Your task to perform on an android device: turn off picture-in-picture Image 0: 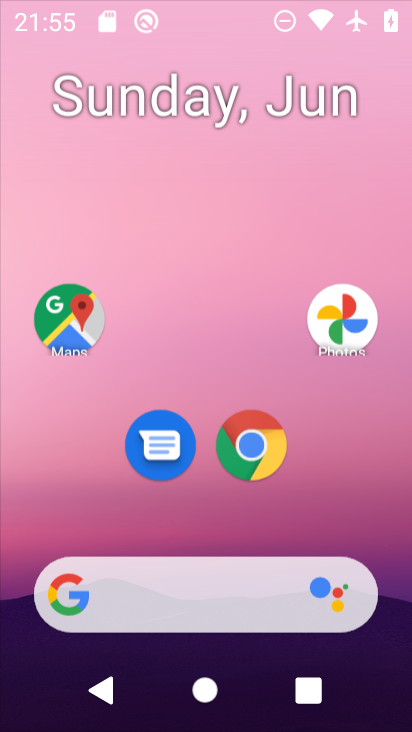
Step 0: press home button
Your task to perform on an android device: turn off picture-in-picture Image 1: 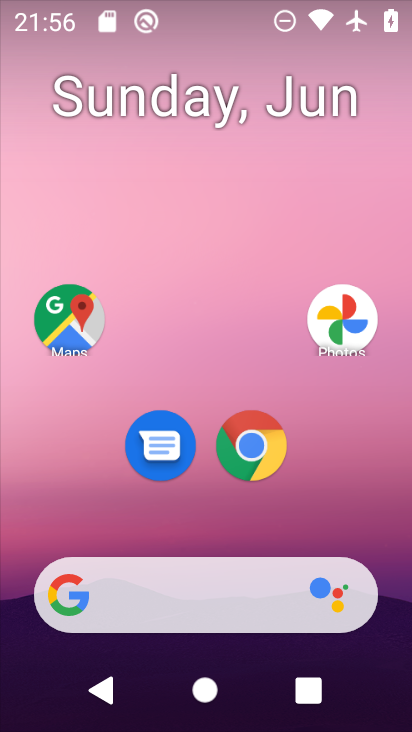
Step 1: click (127, 603)
Your task to perform on an android device: turn off picture-in-picture Image 2: 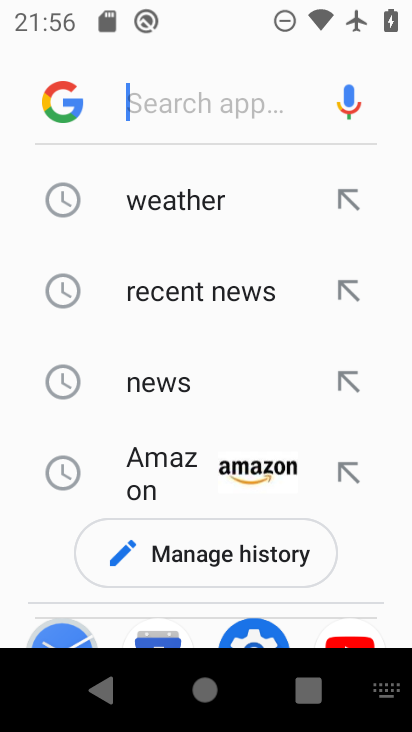
Step 2: press home button
Your task to perform on an android device: turn off picture-in-picture Image 3: 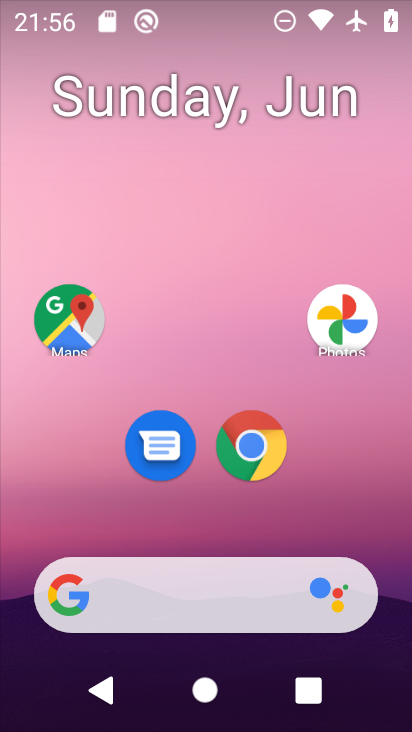
Step 3: click (259, 447)
Your task to perform on an android device: turn off picture-in-picture Image 4: 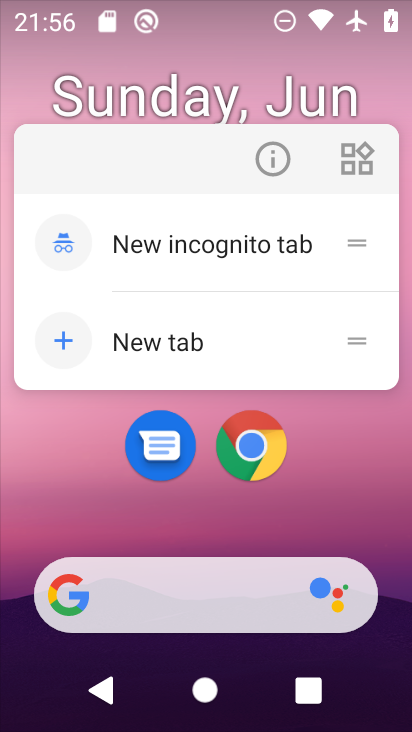
Step 4: click (277, 162)
Your task to perform on an android device: turn off picture-in-picture Image 5: 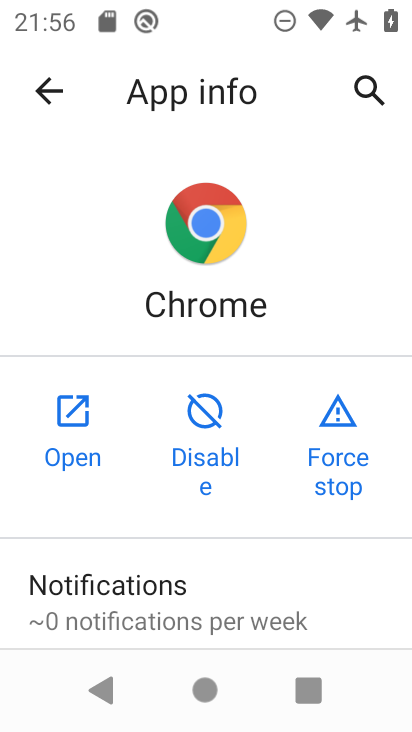
Step 5: drag from (267, 600) to (280, 35)
Your task to perform on an android device: turn off picture-in-picture Image 6: 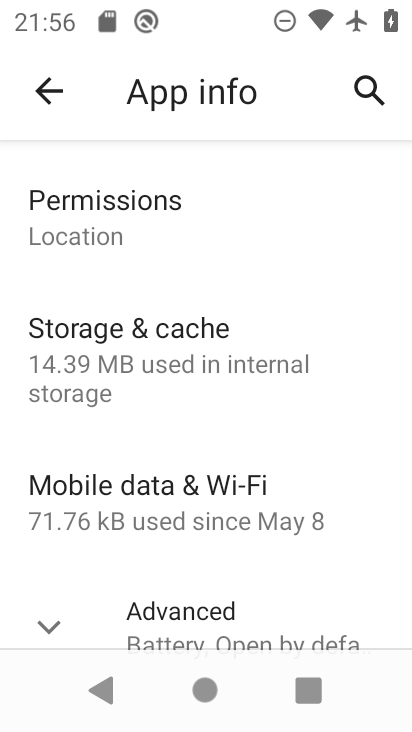
Step 6: drag from (255, 470) to (275, 130)
Your task to perform on an android device: turn off picture-in-picture Image 7: 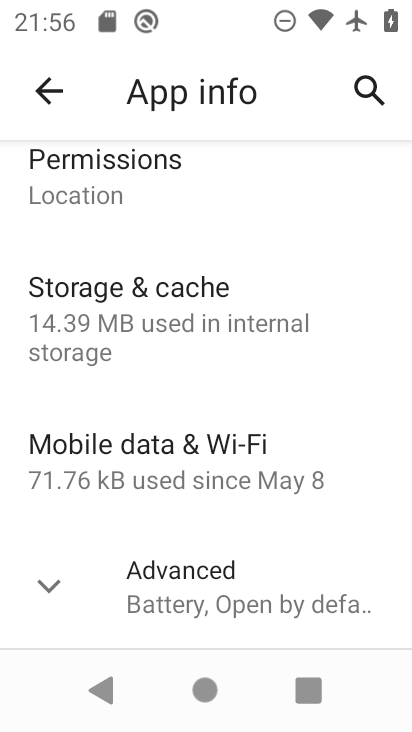
Step 7: click (180, 572)
Your task to perform on an android device: turn off picture-in-picture Image 8: 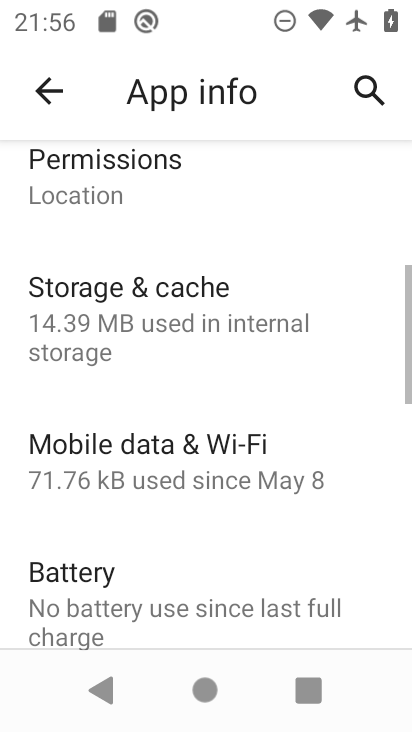
Step 8: drag from (230, 555) to (246, 12)
Your task to perform on an android device: turn off picture-in-picture Image 9: 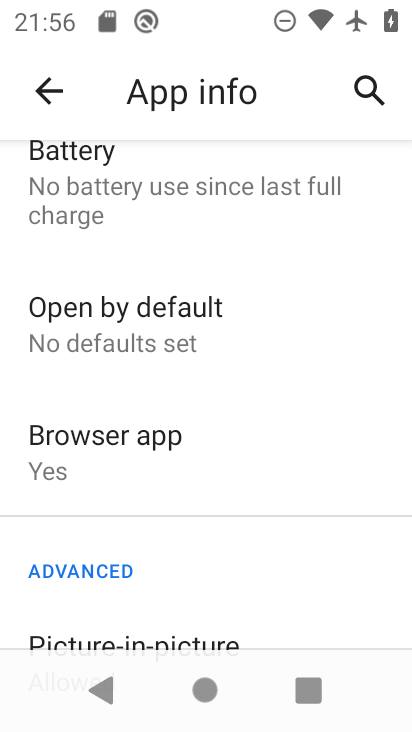
Step 9: drag from (204, 564) to (229, 130)
Your task to perform on an android device: turn off picture-in-picture Image 10: 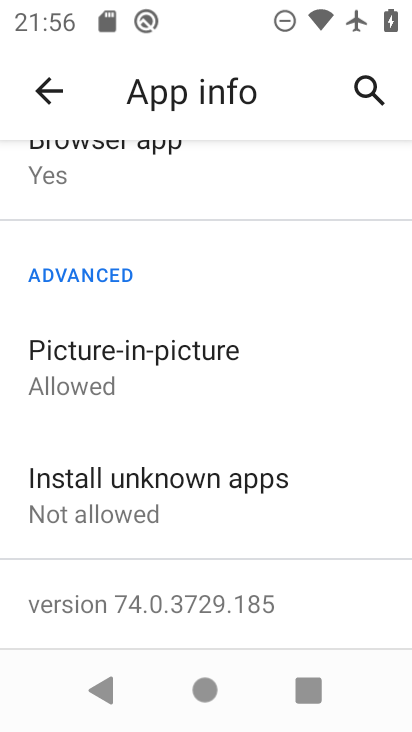
Step 10: click (110, 368)
Your task to perform on an android device: turn off picture-in-picture Image 11: 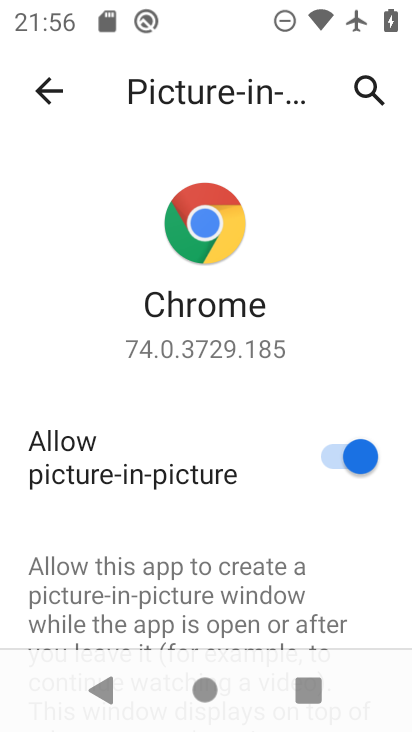
Step 11: click (362, 464)
Your task to perform on an android device: turn off picture-in-picture Image 12: 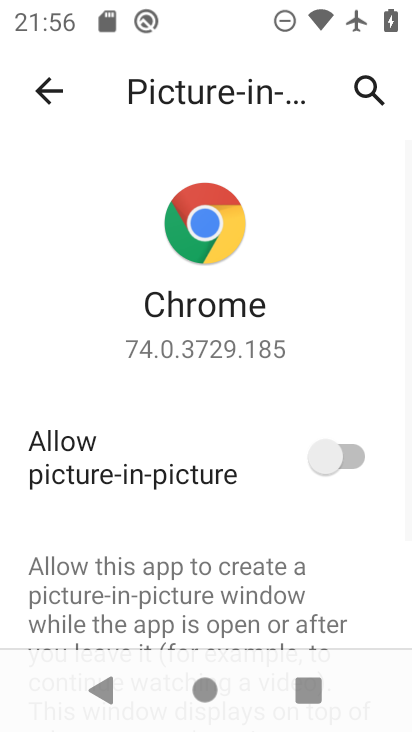
Step 12: task complete